Your task to perform on an android device: change the clock style Image 0: 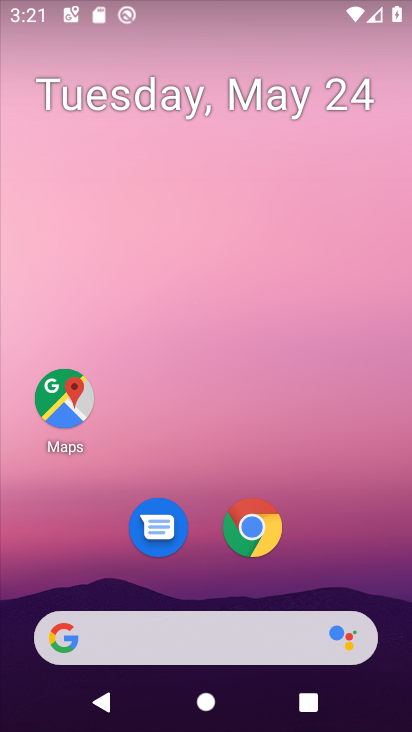
Step 0: drag from (359, 587) to (358, 3)
Your task to perform on an android device: change the clock style Image 1: 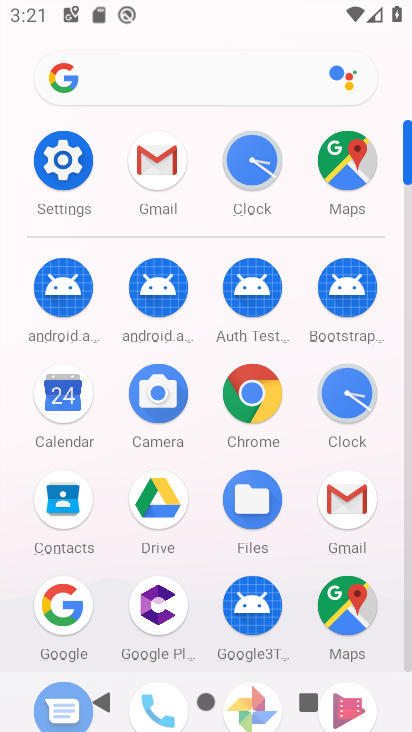
Step 1: click (257, 168)
Your task to perform on an android device: change the clock style Image 2: 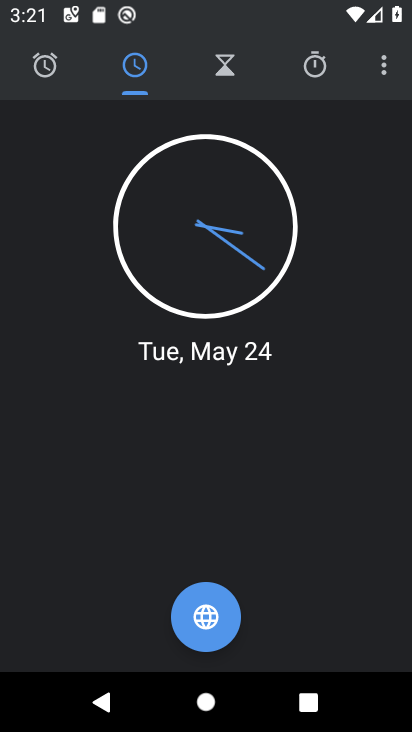
Step 2: click (383, 69)
Your task to perform on an android device: change the clock style Image 3: 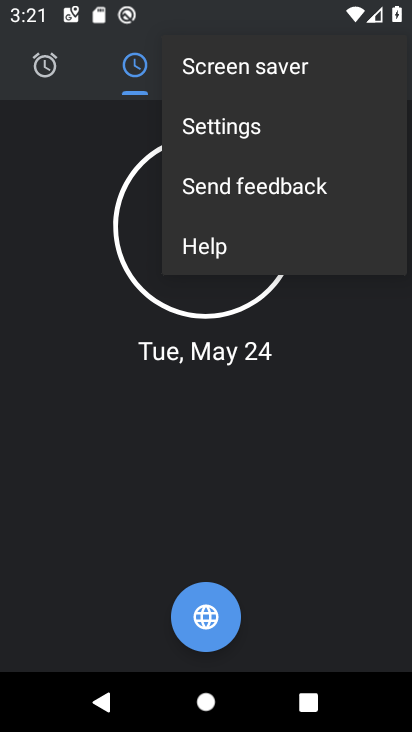
Step 3: click (212, 131)
Your task to perform on an android device: change the clock style Image 4: 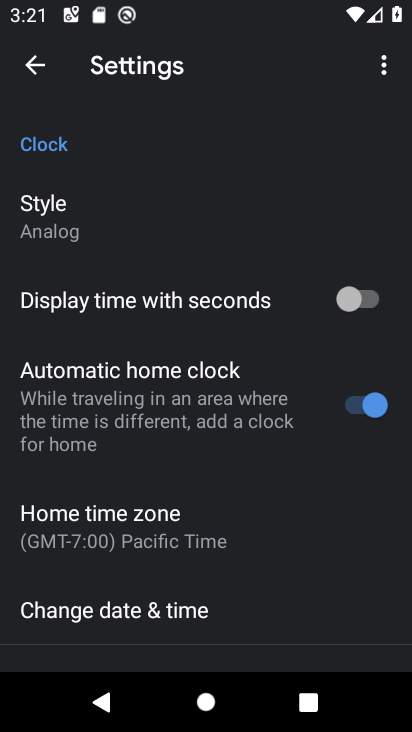
Step 4: click (58, 226)
Your task to perform on an android device: change the clock style Image 5: 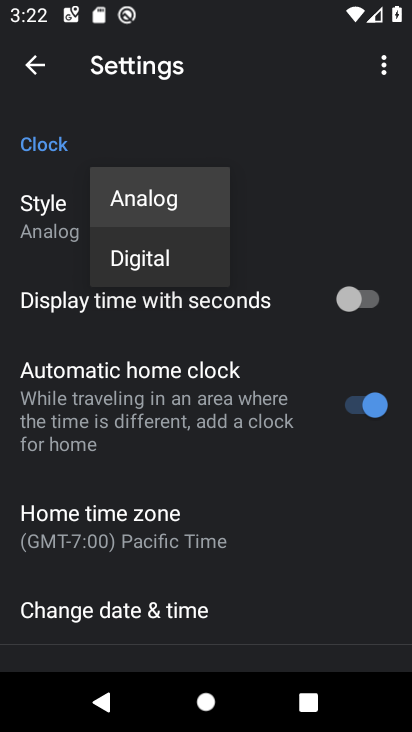
Step 5: click (135, 262)
Your task to perform on an android device: change the clock style Image 6: 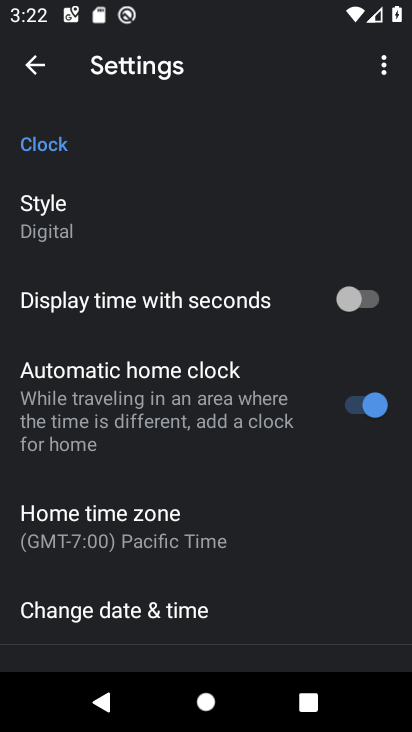
Step 6: task complete